Your task to perform on an android device: turn on priority inbox in the gmail app Image 0: 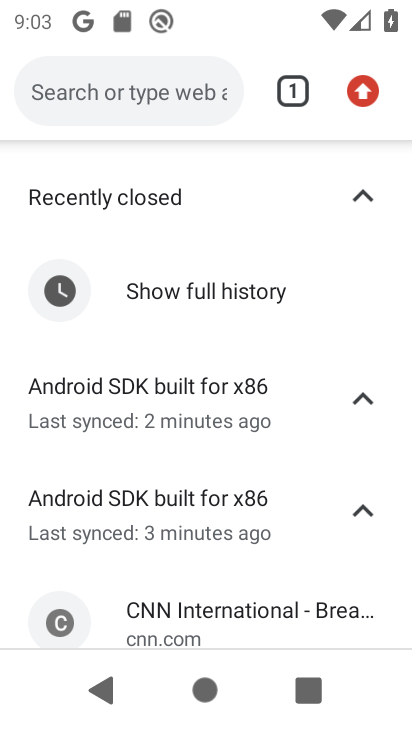
Step 0: press home button
Your task to perform on an android device: turn on priority inbox in the gmail app Image 1: 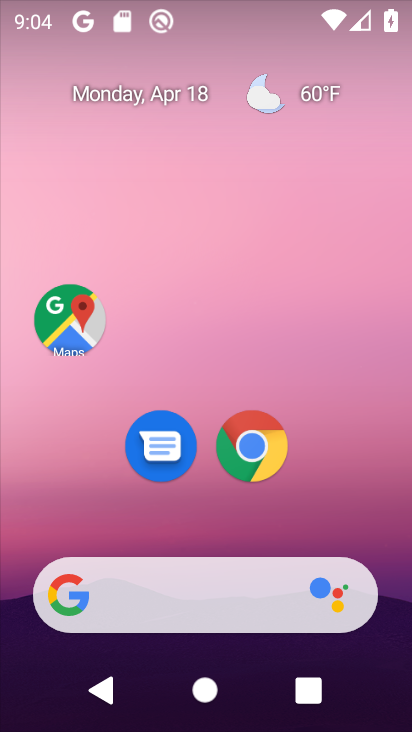
Step 1: drag from (378, 512) to (359, 132)
Your task to perform on an android device: turn on priority inbox in the gmail app Image 2: 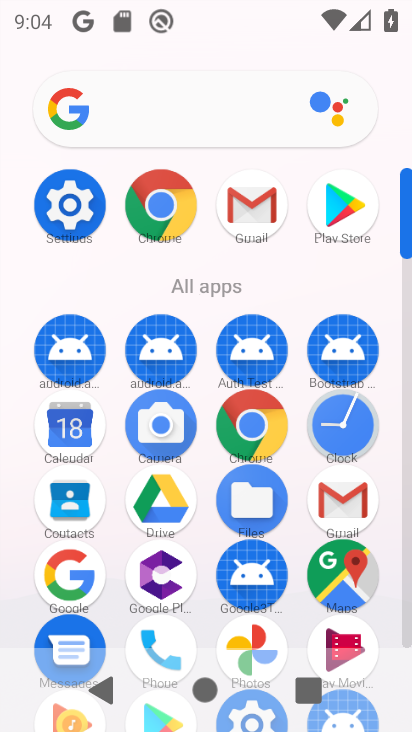
Step 2: drag from (403, 485) to (406, 643)
Your task to perform on an android device: turn on priority inbox in the gmail app Image 3: 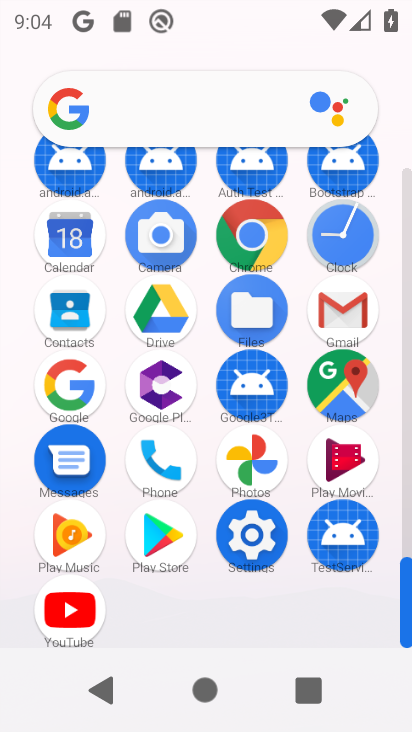
Step 3: click (349, 300)
Your task to perform on an android device: turn on priority inbox in the gmail app Image 4: 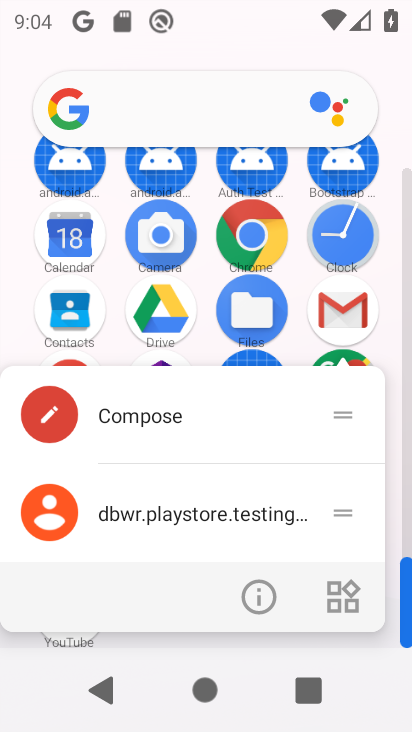
Step 4: click (350, 301)
Your task to perform on an android device: turn on priority inbox in the gmail app Image 5: 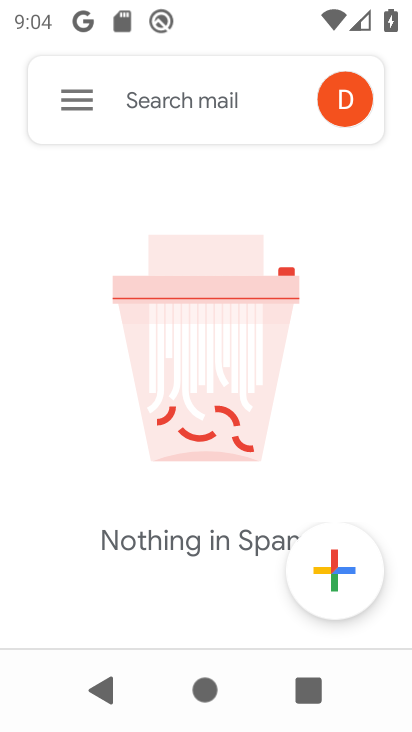
Step 5: click (81, 100)
Your task to perform on an android device: turn on priority inbox in the gmail app Image 6: 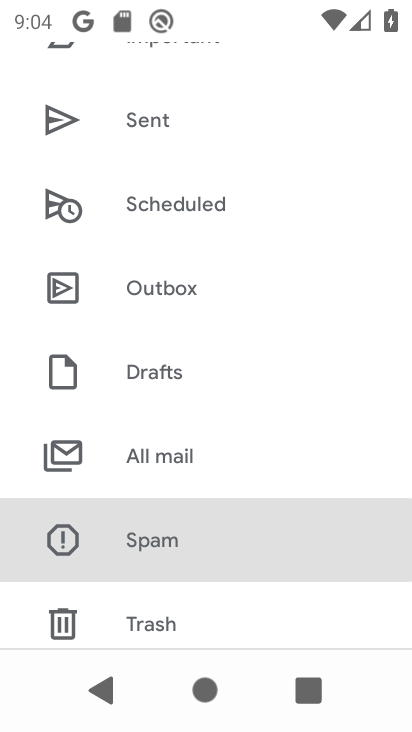
Step 6: drag from (340, 221) to (344, 378)
Your task to perform on an android device: turn on priority inbox in the gmail app Image 7: 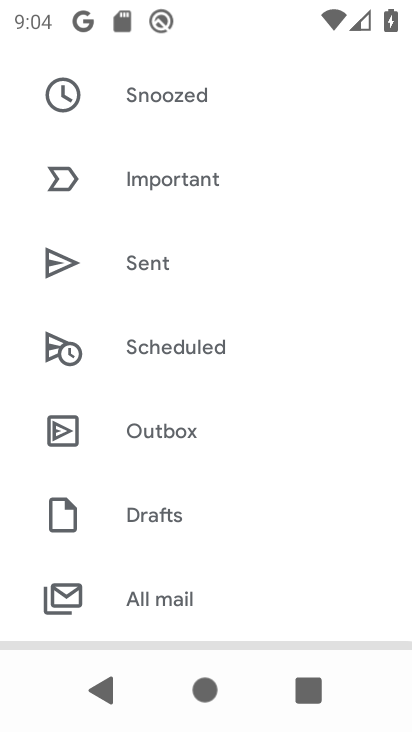
Step 7: drag from (352, 196) to (347, 495)
Your task to perform on an android device: turn on priority inbox in the gmail app Image 8: 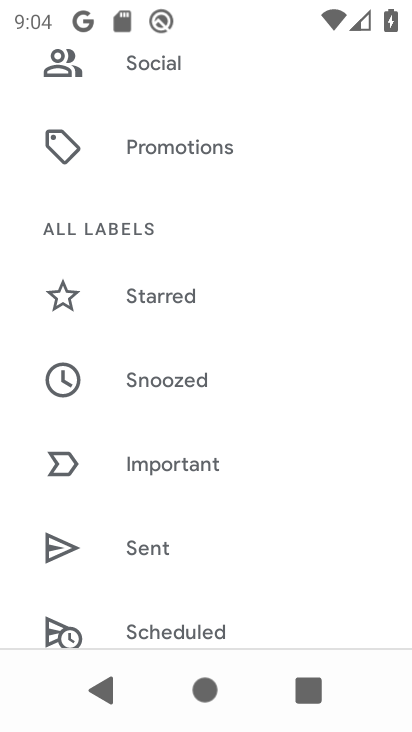
Step 8: drag from (333, 265) to (328, 507)
Your task to perform on an android device: turn on priority inbox in the gmail app Image 9: 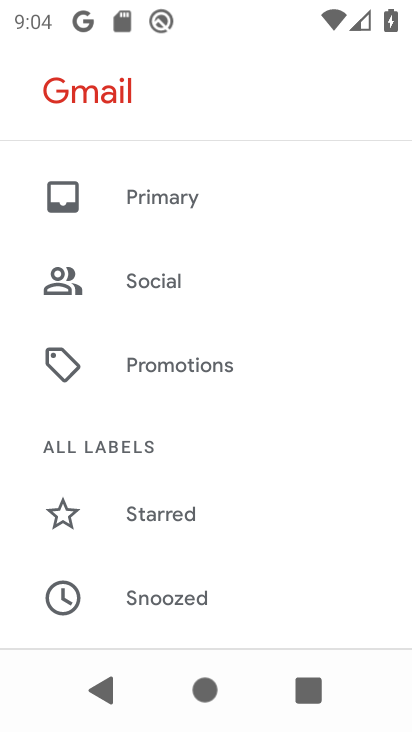
Step 9: drag from (314, 554) to (326, 271)
Your task to perform on an android device: turn on priority inbox in the gmail app Image 10: 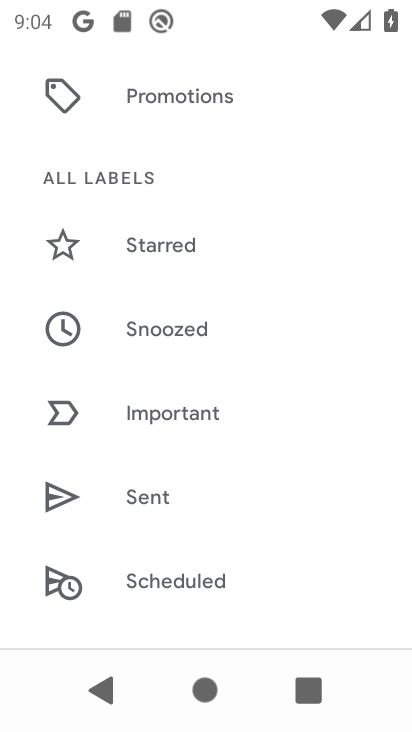
Step 10: drag from (340, 518) to (340, 282)
Your task to perform on an android device: turn on priority inbox in the gmail app Image 11: 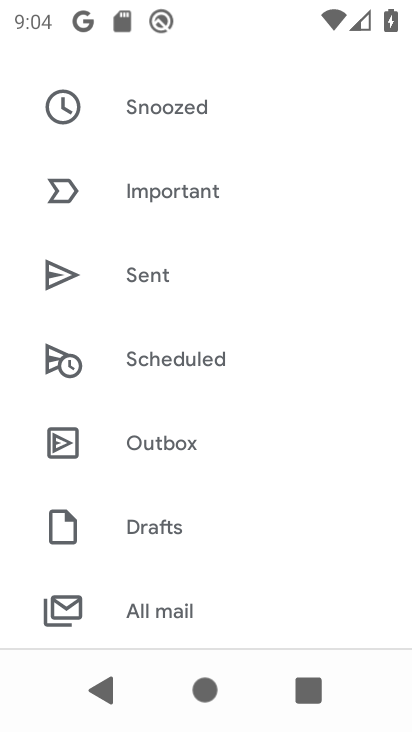
Step 11: drag from (330, 548) to (328, 242)
Your task to perform on an android device: turn on priority inbox in the gmail app Image 12: 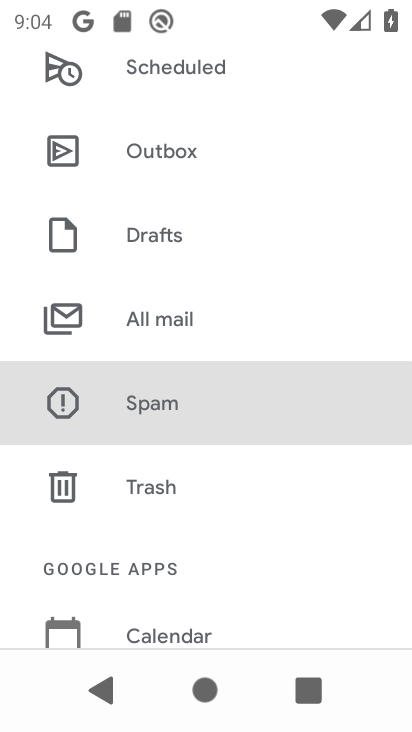
Step 12: drag from (317, 550) to (319, 318)
Your task to perform on an android device: turn on priority inbox in the gmail app Image 13: 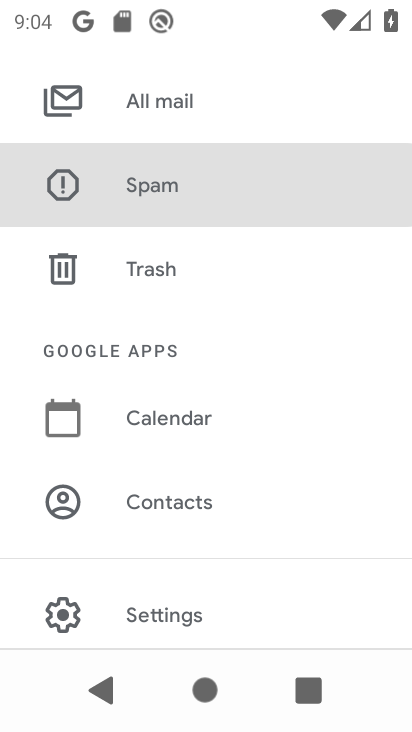
Step 13: click (188, 614)
Your task to perform on an android device: turn on priority inbox in the gmail app Image 14: 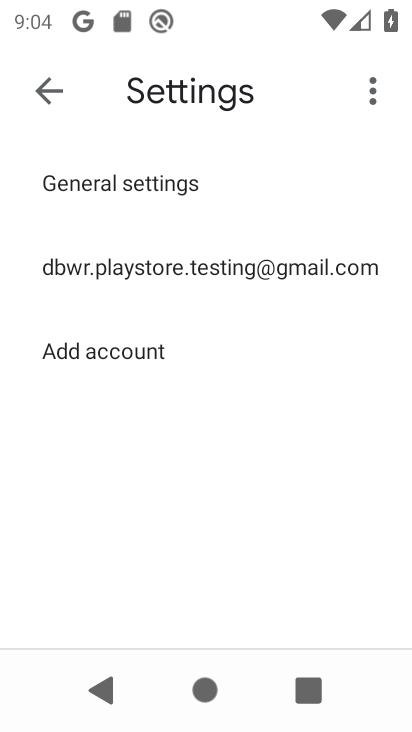
Step 14: click (280, 271)
Your task to perform on an android device: turn on priority inbox in the gmail app Image 15: 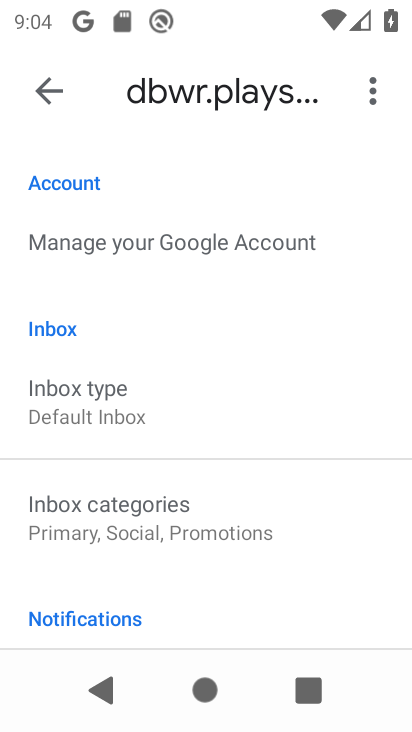
Step 15: drag from (355, 585) to (346, 401)
Your task to perform on an android device: turn on priority inbox in the gmail app Image 16: 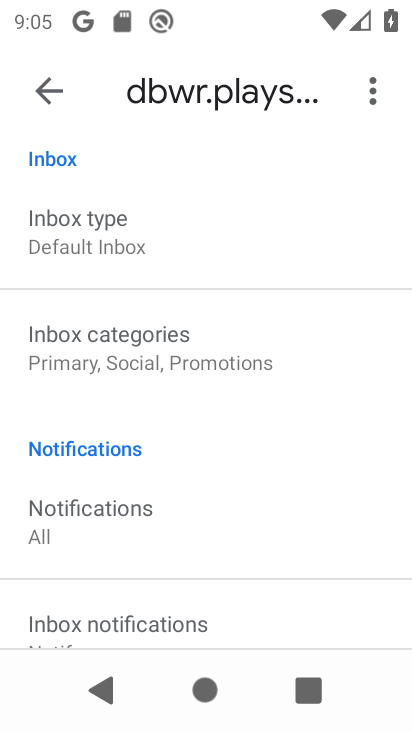
Step 16: click (91, 238)
Your task to perform on an android device: turn on priority inbox in the gmail app Image 17: 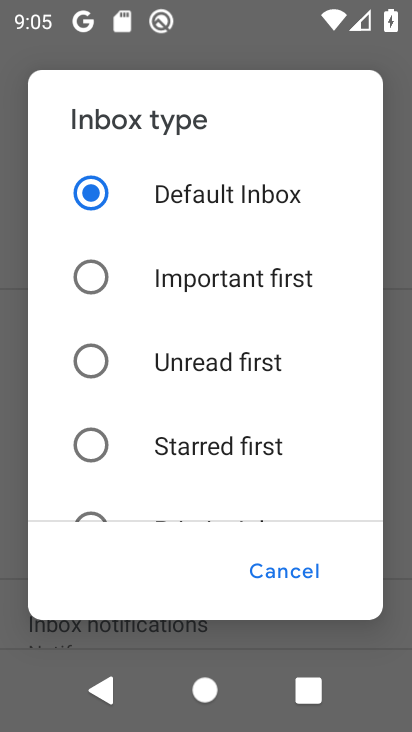
Step 17: drag from (324, 454) to (335, 231)
Your task to perform on an android device: turn on priority inbox in the gmail app Image 18: 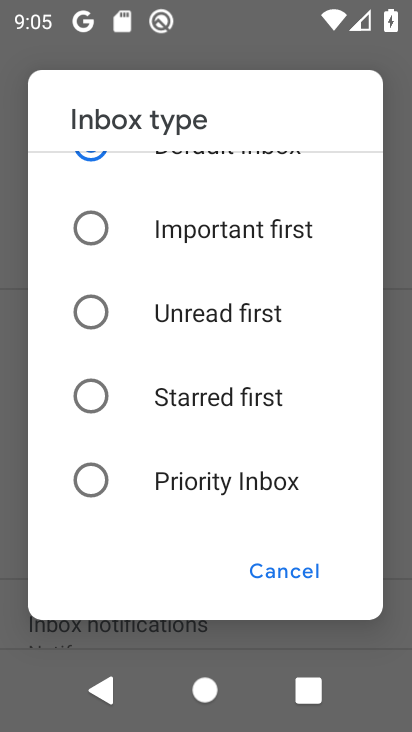
Step 18: click (89, 489)
Your task to perform on an android device: turn on priority inbox in the gmail app Image 19: 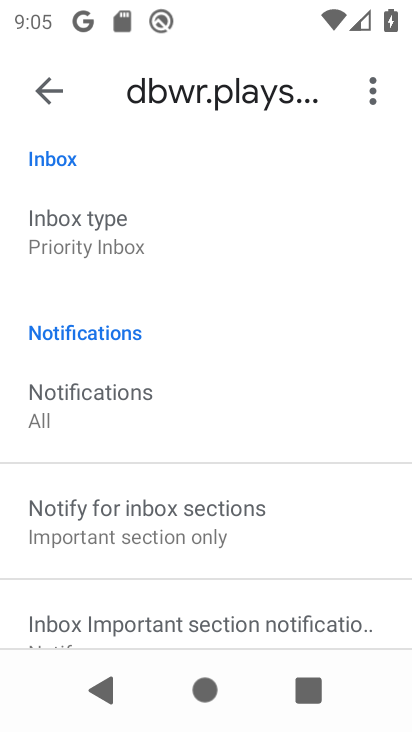
Step 19: task complete